Your task to perform on an android device: turn on airplane mode Image 0: 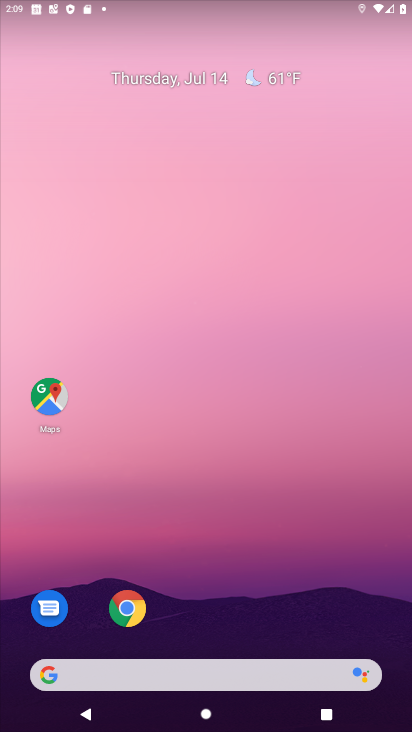
Step 0: drag from (215, 680) to (260, 217)
Your task to perform on an android device: turn on airplane mode Image 1: 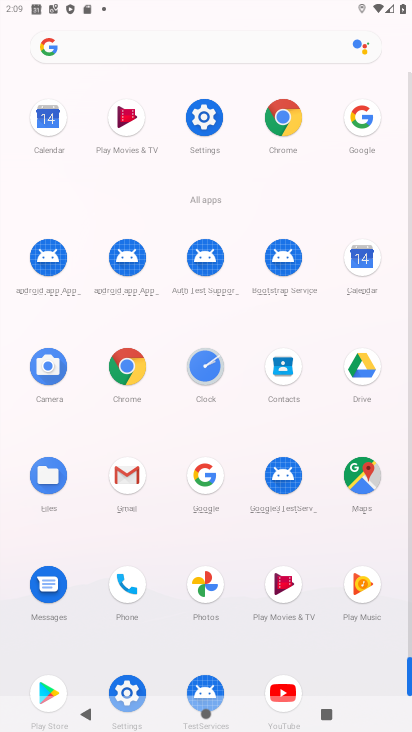
Step 1: click (204, 116)
Your task to perform on an android device: turn on airplane mode Image 2: 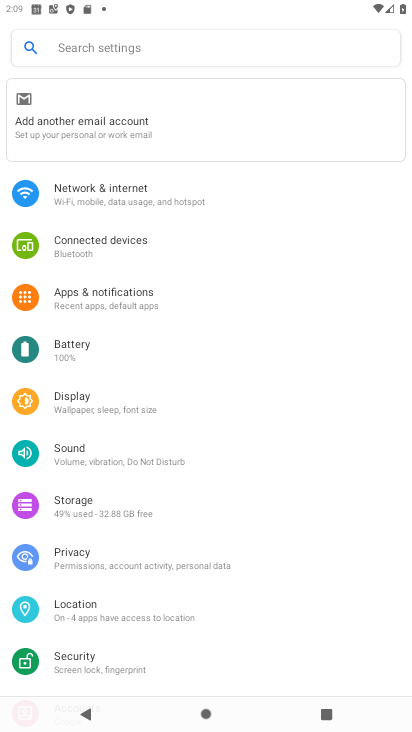
Step 2: click (137, 198)
Your task to perform on an android device: turn on airplane mode Image 3: 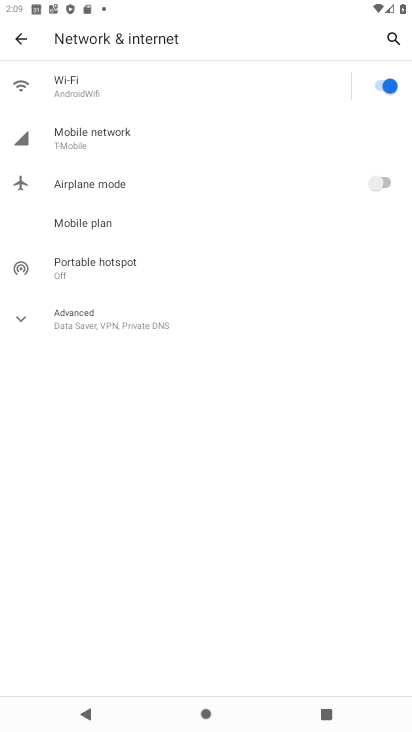
Step 3: click (380, 179)
Your task to perform on an android device: turn on airplane mode Image 4: 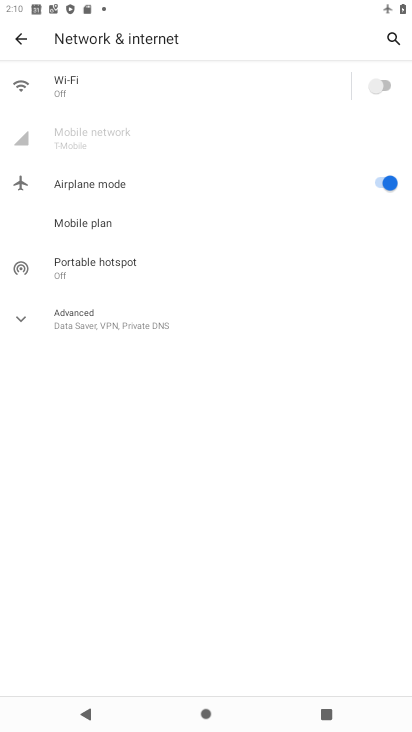
Step 4: task complete